Your task to perform on an android device: Find coffee shops on Maps Image 0: 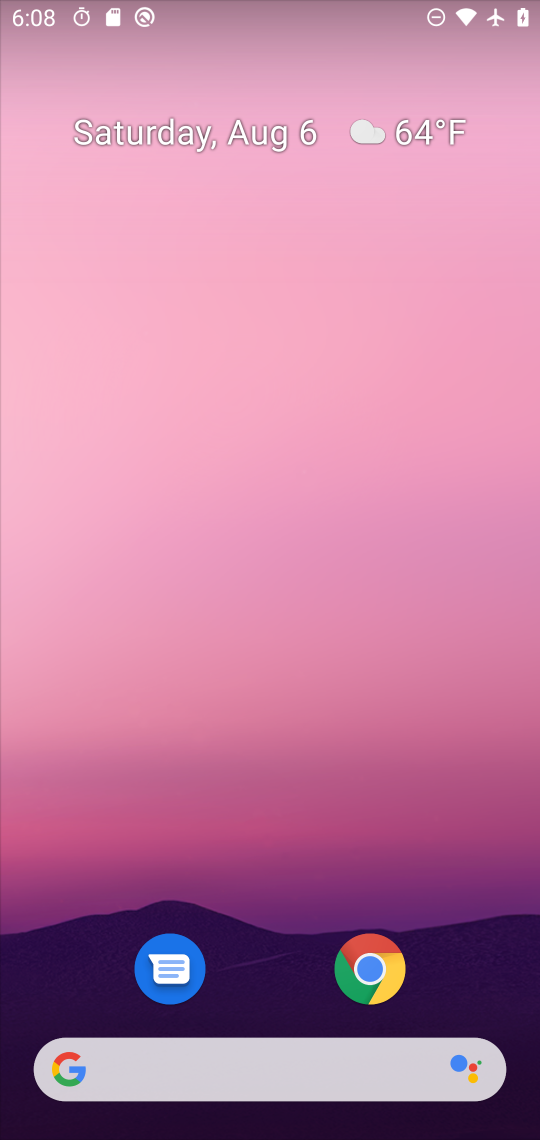
Step 0: drag from (271, 988) to (439, 216)
Your task to perform on an android device: Find coffee shops on Maps Image 1: 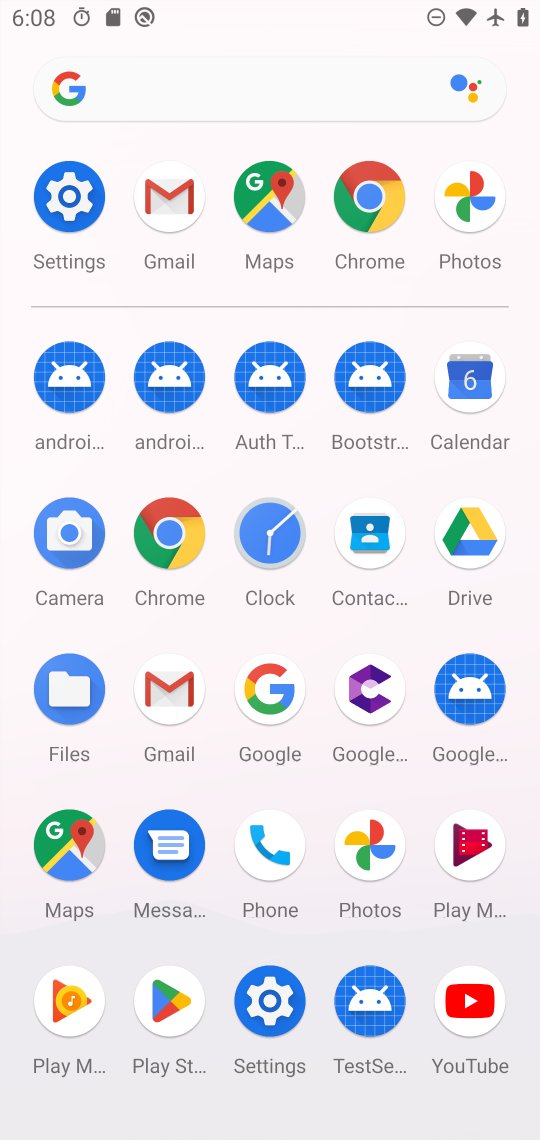
Step 1: click (64, 839)
Your task to perform on an android device: Find coffee shops on Maps Image 2: 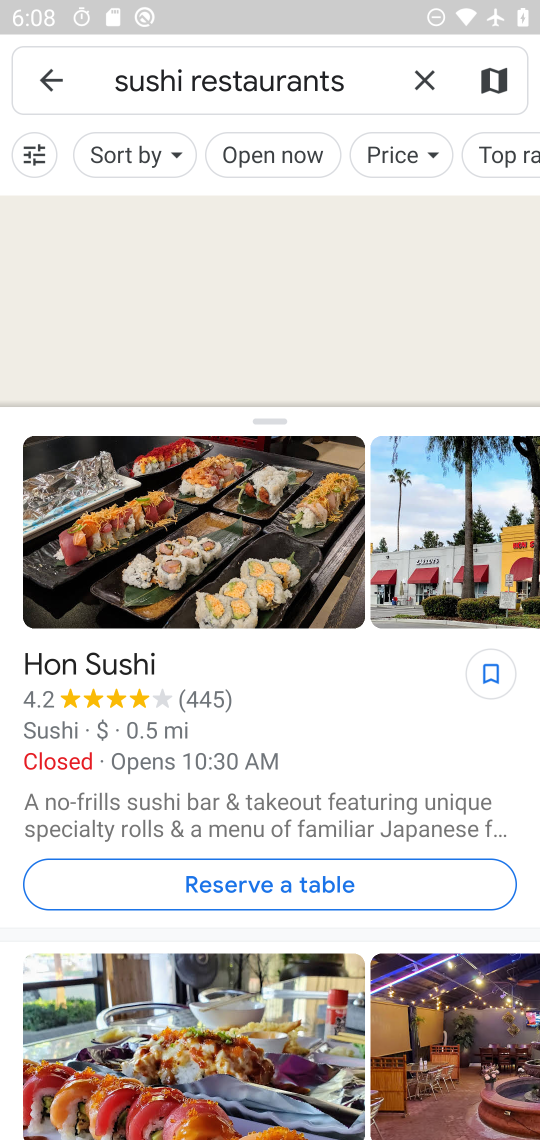
Step 2: click (48, 82)
Your task to perform on an android device: Find coffee shops on Maps Image 3: 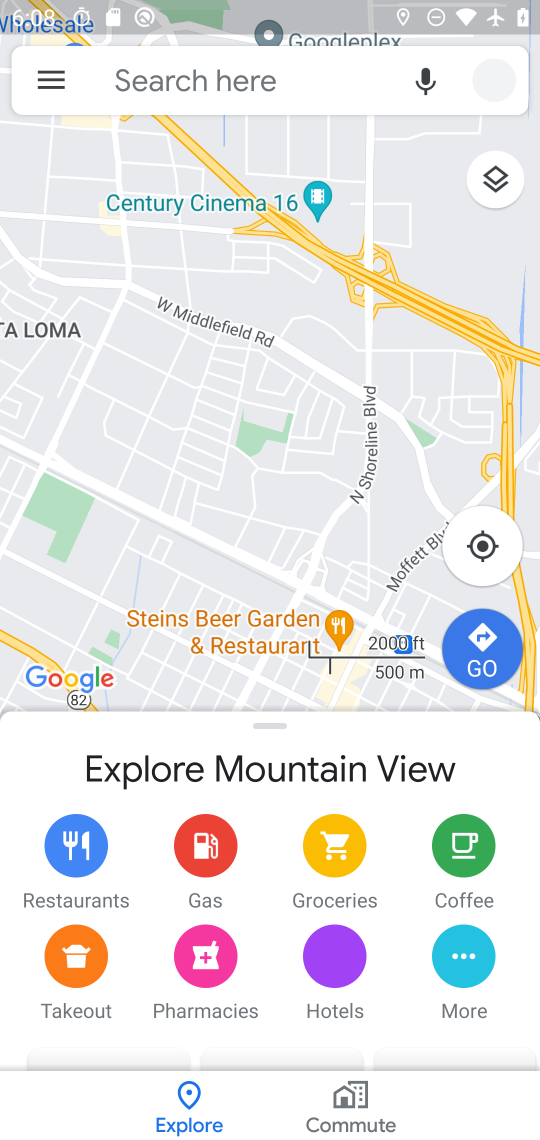
Step 3: click (241, 75)
Your task to perform on an android device: Find coffee shops on Maps Image 4: 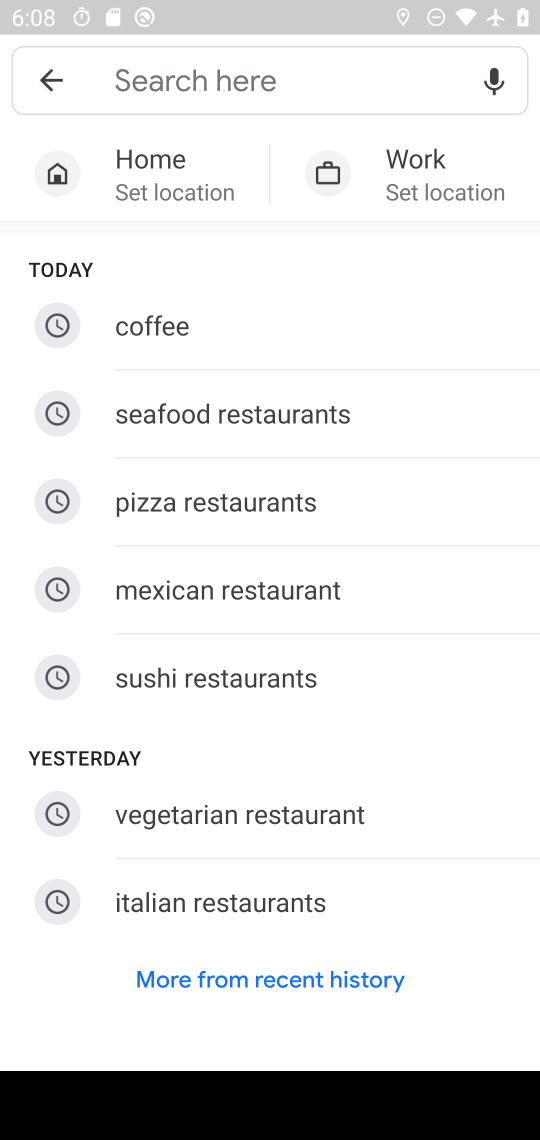
Step 4: press enter
Your task to perform on an android device: Find coffee shops on Maps Image 5: 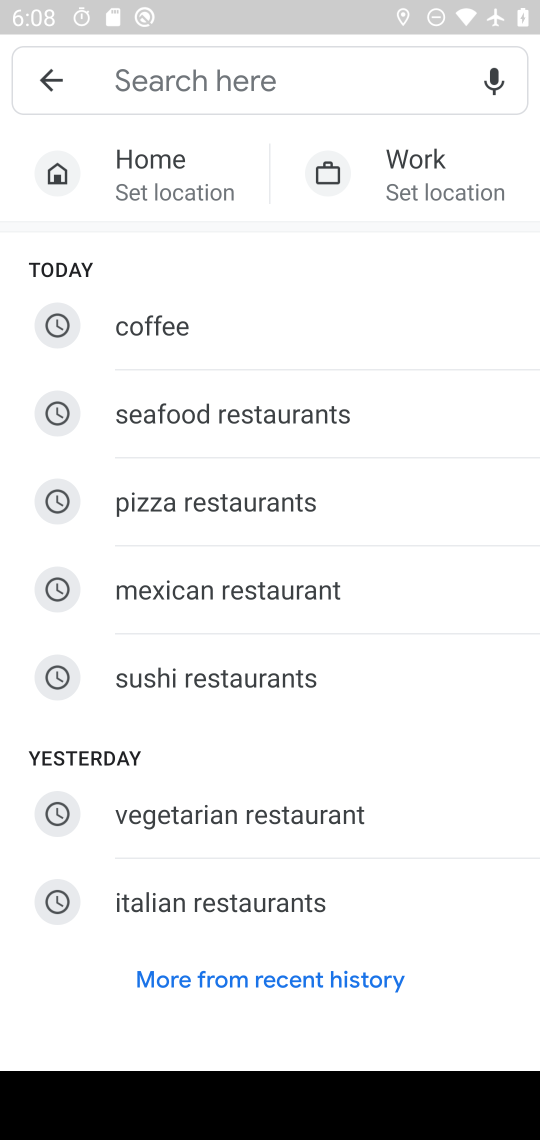
Step 5: type "coffee shops"
Your task to perform on an android device: Find coffee shops on Maps Image 6: 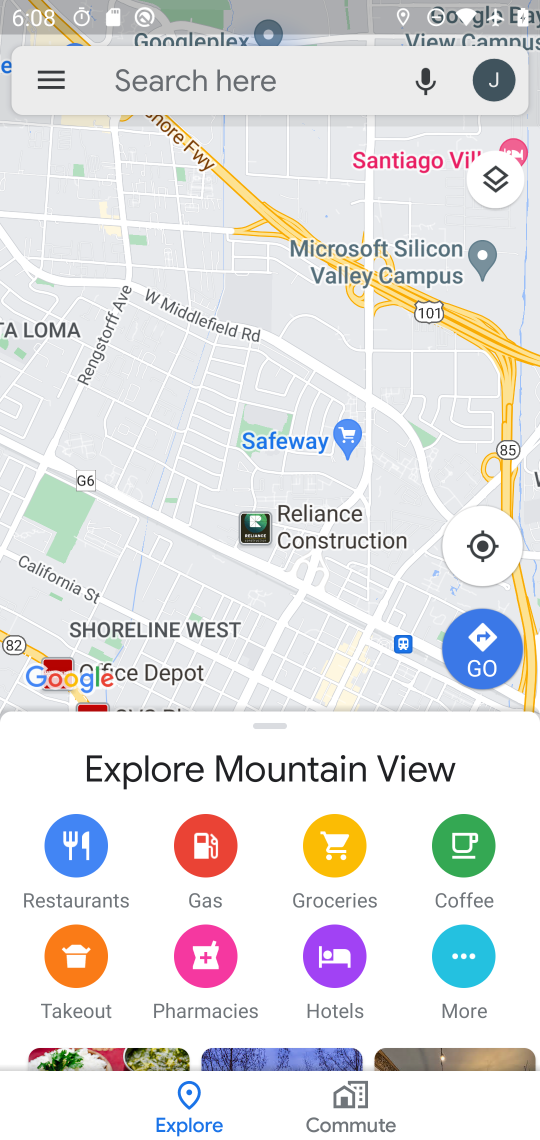
Step 6: click (162, 86)
Your task to perform on an android device: Find coffee shops on Maps Image 7: 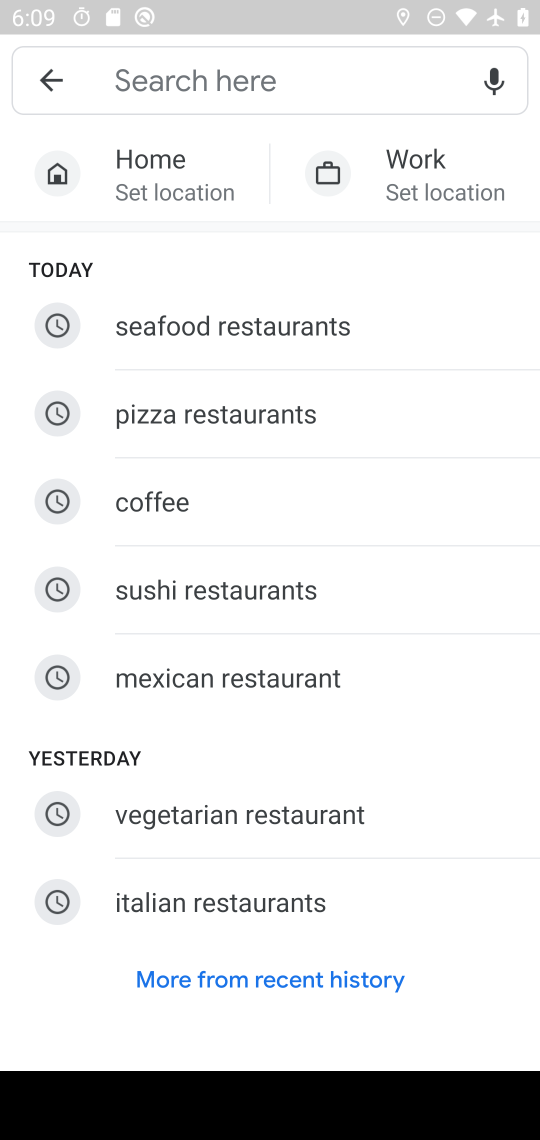
Step 7: type "coffee shops"
Your task to perform on an android device: Find coffee shops on Maps Image 8: 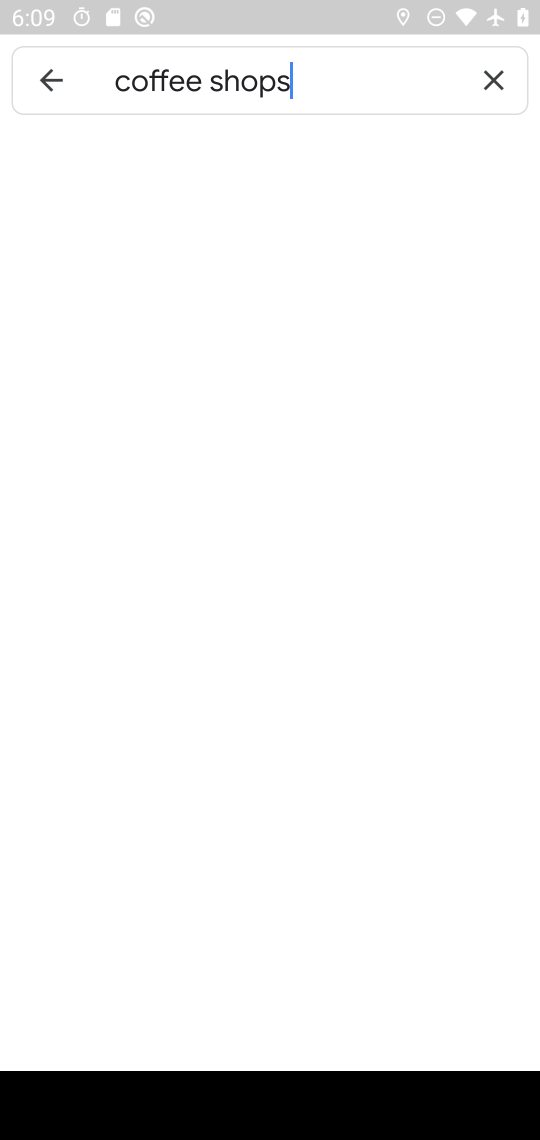
Step 8: press enter
Your task to perform on an android device: Find coffee shops on Maps Image 9: 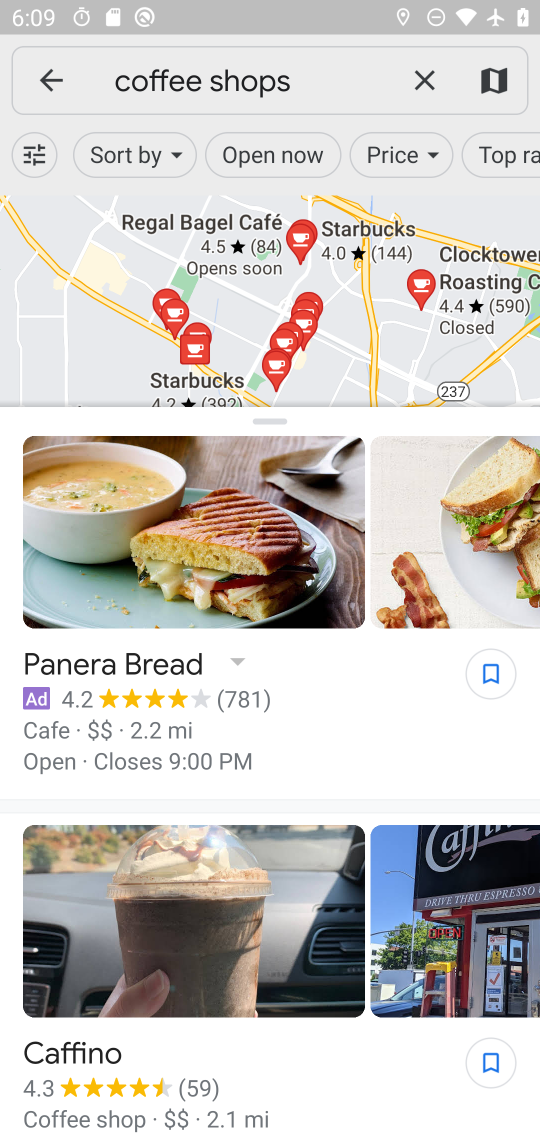
Step 9: task complete